Your task to perform on an android device: toggle location history Image 0: 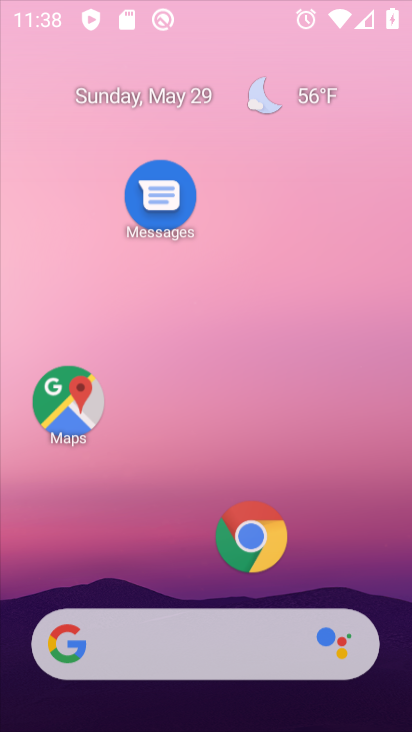
Step 0: press home button
Your task to perform on an android device: toggle location history Image 1: 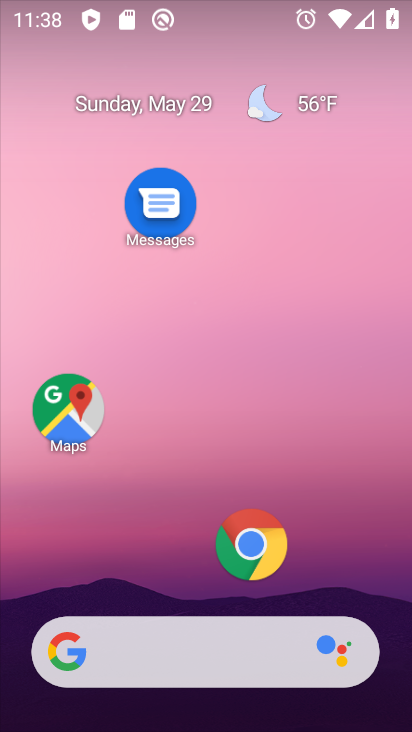
Step 1: drag from (186, 572) to (247, 275)
Your task to perform on an android device: toggle location history Image 2: 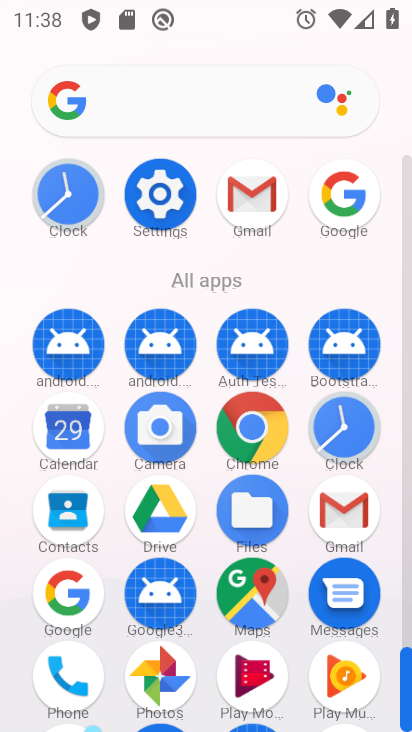
Step 2: click (140, 178)
Your task to perform on an android device: toggle location history Image 3: 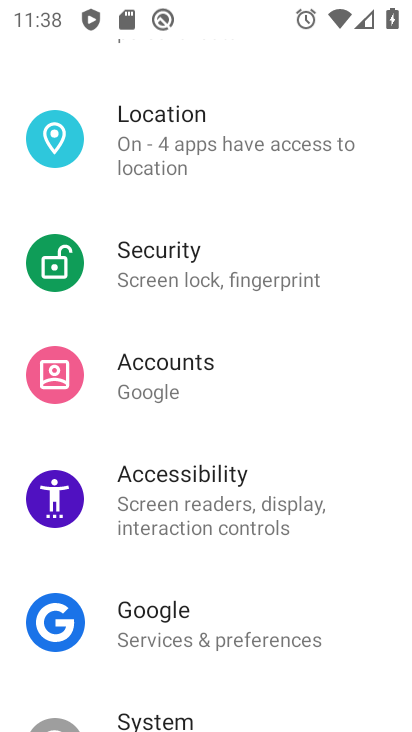
Step 3: click (183, 158)
Your task to perform on an android device: toggle location history Image 4: 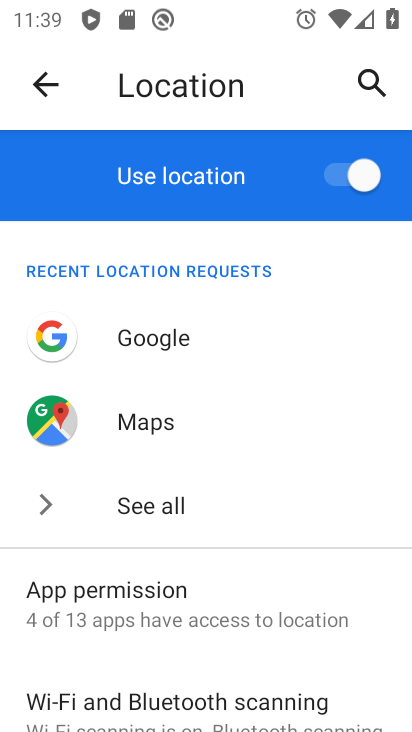
Step 4: drag from (213, 646) to (243, 383)
Your task to perform on an android device: toggle location history Image 5: 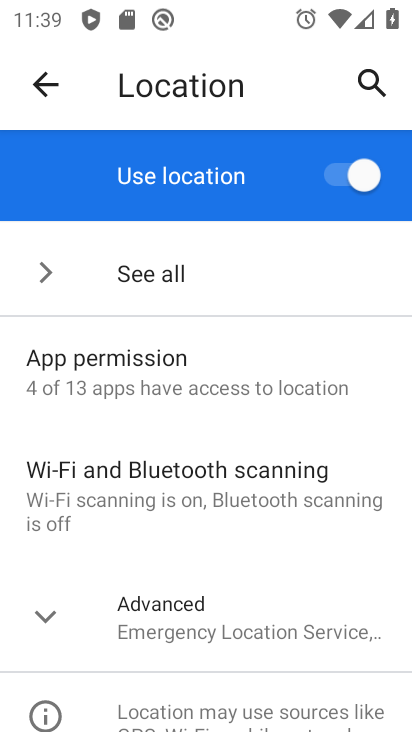
Step 5: click (35, 612)
Your task to perform on an android device: toggle location history Image 6: 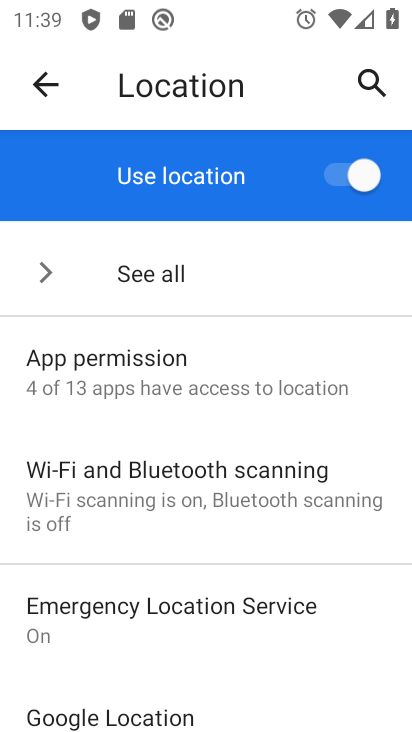
Step 6: drag from (240, 661) to (238, 269)
Your task to perform on an android device: toggle location history Image 7: 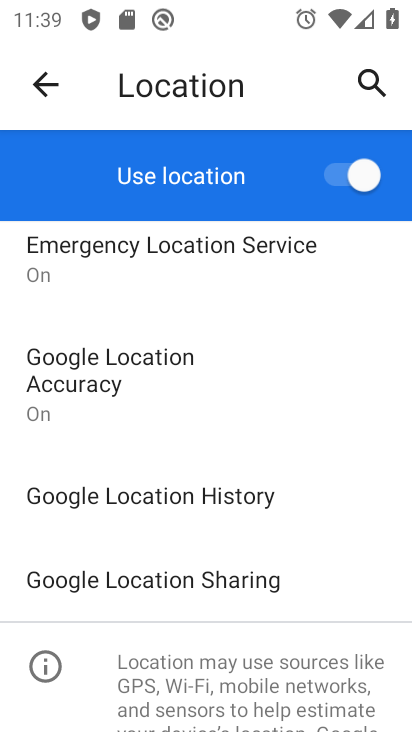
Step 7: click (274, 506)
Your task to perform on an android device: toggle location history Image 8: 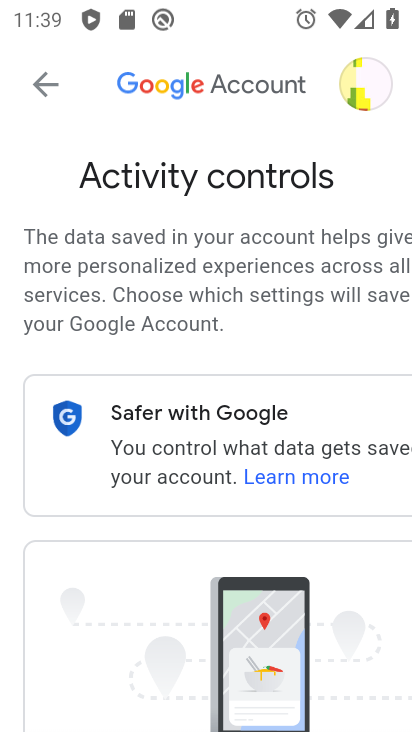
Step 8: task complete